Your task to perform on an android device: Open the phone app and click the voicemail tab. Image 0: 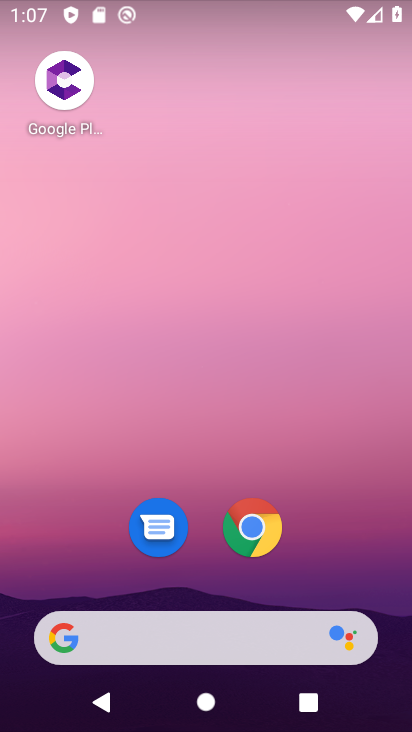
Step 0: drag from (348, 544) to (286, 20)
Your task to perform on an android device: Open the phone app and click the voicemail tab. Image 1: 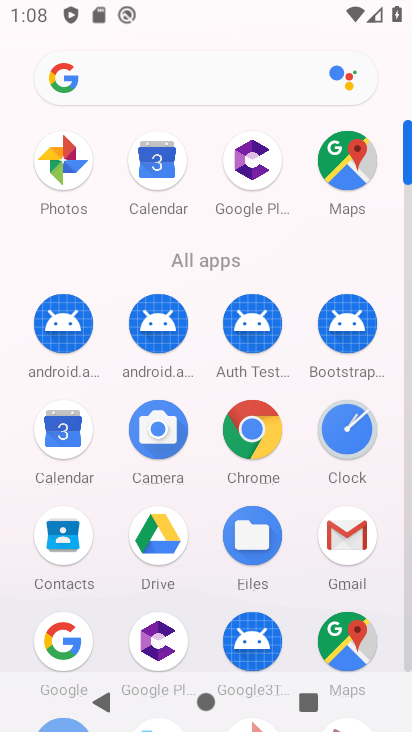
Step 1: drag from (207, 599) to (219, 363)
Your task to perform on an android device: Open the phone app and click the voicemail tab. Image 2: 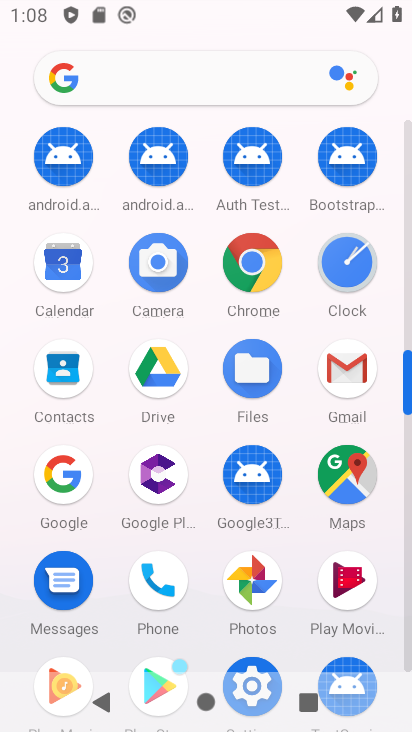
Step 2: click (161, 587)
Your task to perform on an android device: Open the phone app and click the voicemail tab. Image 3: 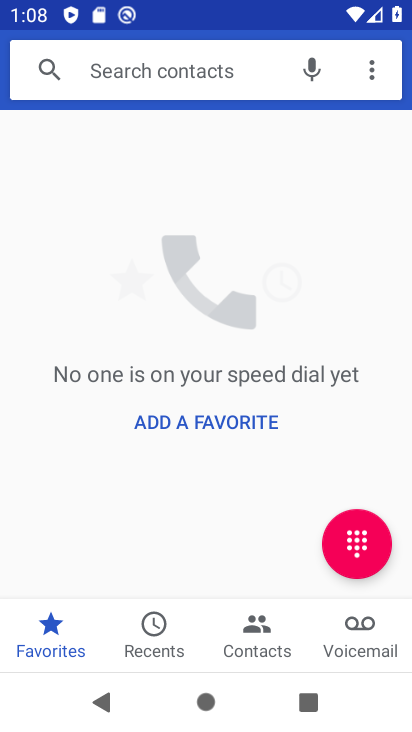
Step 3: click (344, 641)
Your task to perform on an android device: Open the phone app and click the voicemail tab. Image 4: 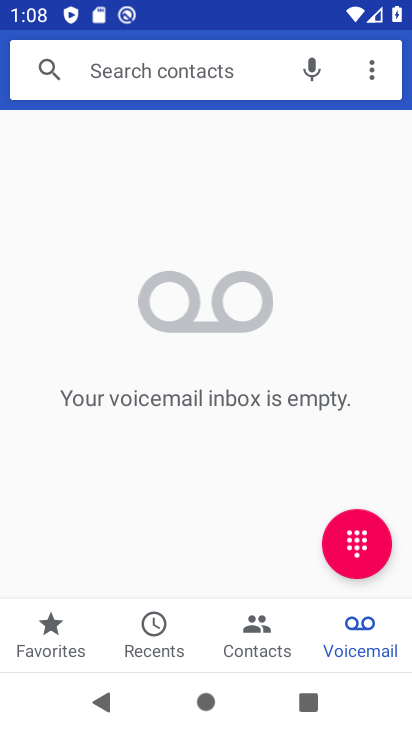
Step 4: task complete